Your task to perform on an android device: What's on my calendar tomorrow? Image 0: 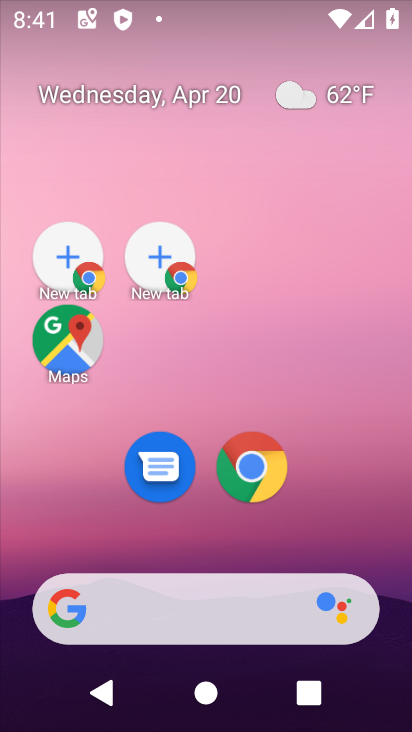
Step 0: drag from (254, 716) to (132, 171)
Your task to perform on an android device: What's on my calendar tomorrow? Image 1: 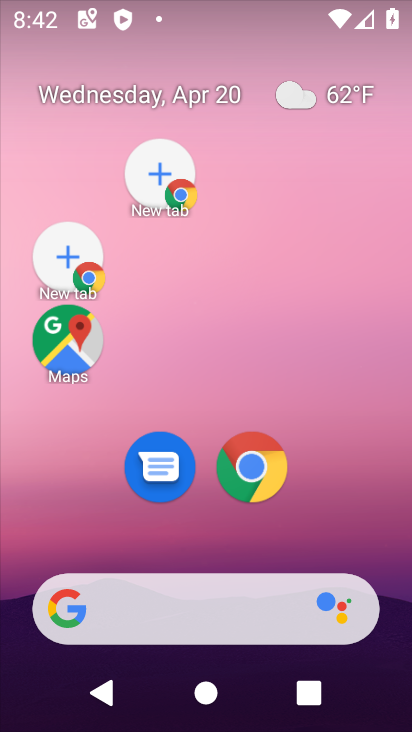
Step 1: drag from (363, 543) to (215, 35)
Your task to perform on an android device: What's on my calendar tomorrow? Image 2: 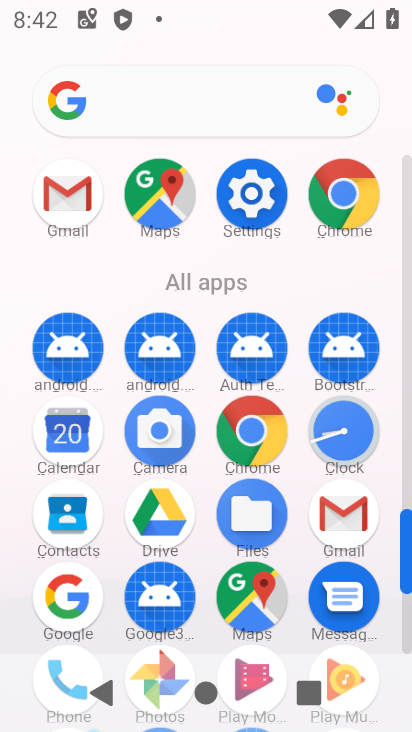
Step 2: click (66, 446)
Your task to perform on an android device: What's on my calendar tomorrow? Image 3: 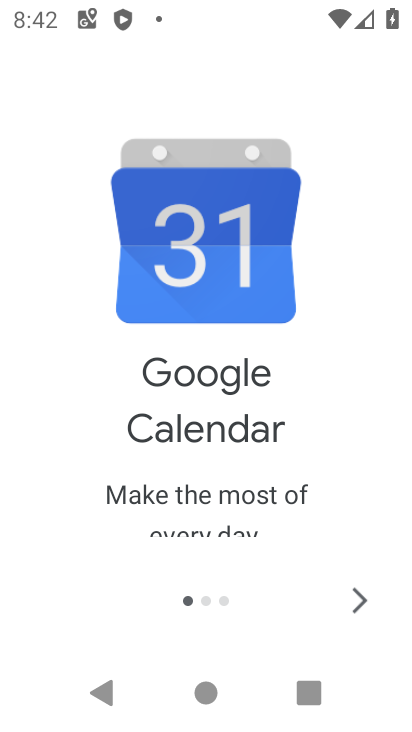
Step 3: click (356, 595)
Your task to perform on an android device: What's on my calendar tomorrow? Image 4: 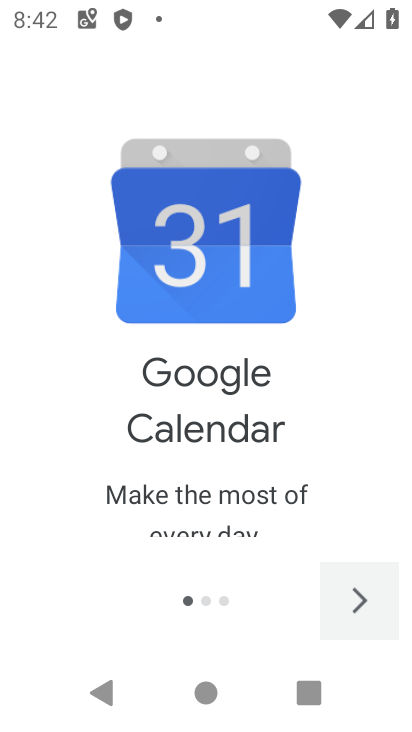
Step 4: click (356, 595)
Your task to perform on an android device: What's on my calendar tomorrow? Image 5: 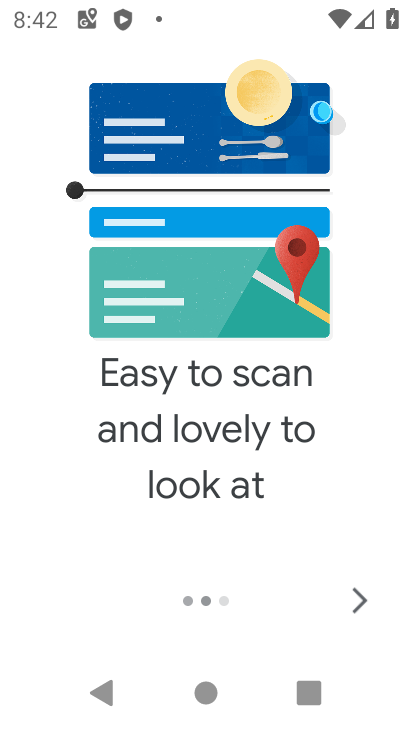
Step 5: click (356, 595)
Your task to perform on an android device: What's on my calendar tomorrow? Image 6: 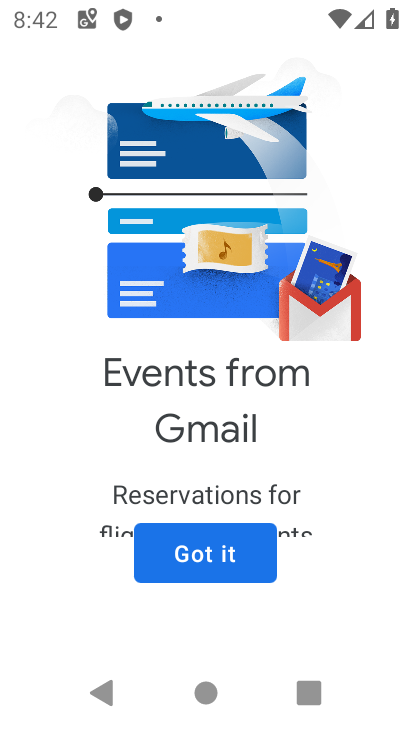
Step 6: click (356, 595)
Your task to perform on an android device: What's on my calendar tomorrow? Image 7: 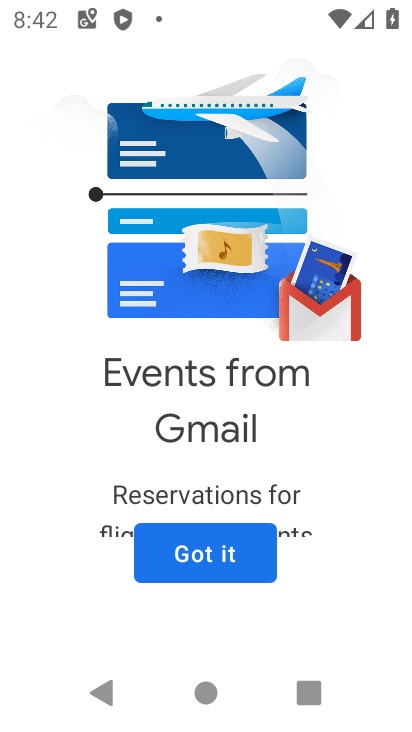
Step 7: click (208, 559)
Your task to perform on an android device: What's on my calendar tomorrow? Image 8: 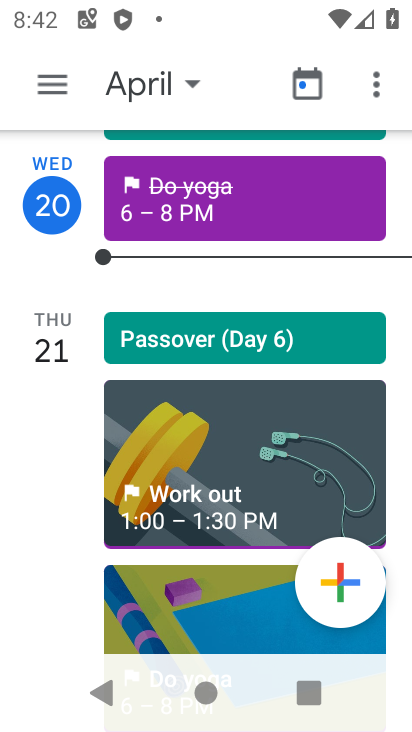
Step 8: task complete